Your task to perform on an android device: Go to wifi settings Image 0: 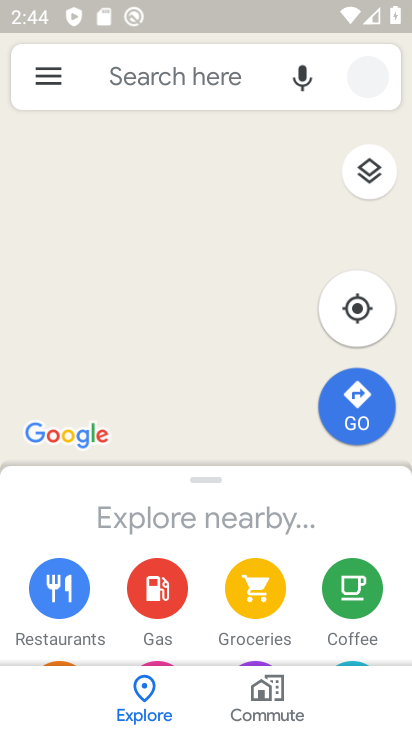
Step 0: press home button
Your task to perform on an android device: Go to wifi settings Image 1: 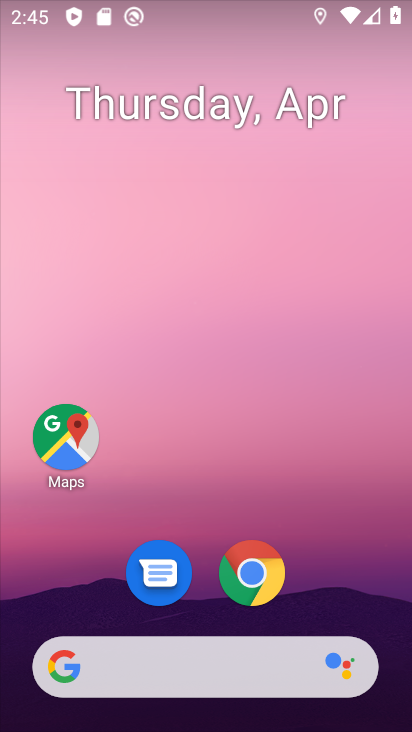
Step 1: drag from (346, 589) to (200, 54)
Your task to perform on an android device: Go to wifi settings Image 2: 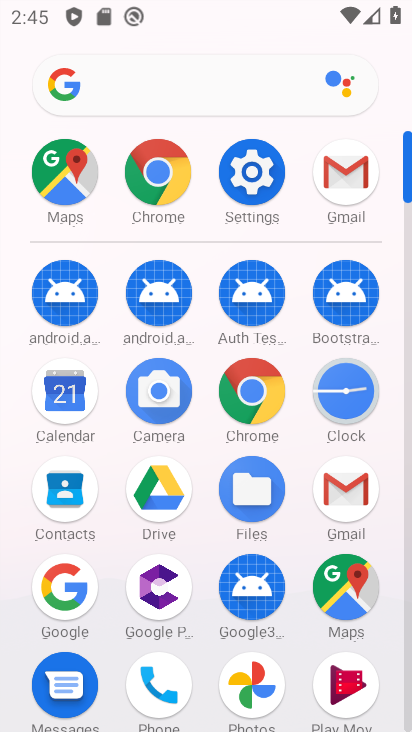
Step 2: click (251, 174)
Your task to perform on an android device: Go to wifi settings Image 3: 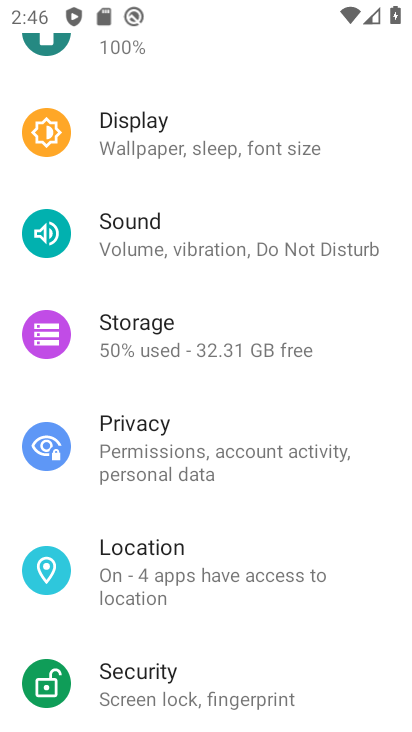
Step 3: drag from (213, 86) to (253, 622)
Your task to perform on an android device: Go to wifi settings Image 4: 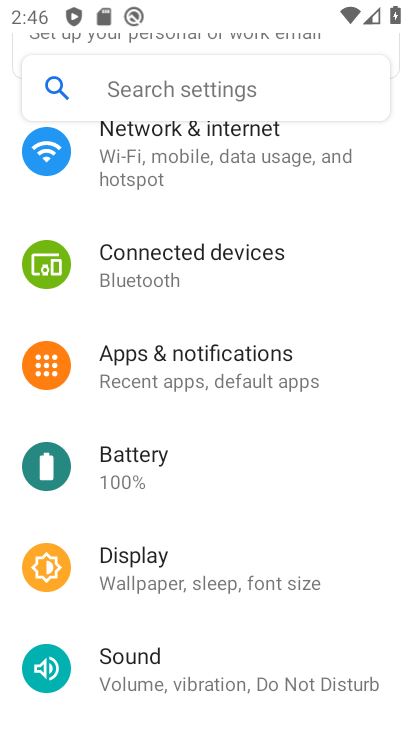
Step 4: click (190, 165)
Your task to perform on an android device: Go to wifi settings Image 5: 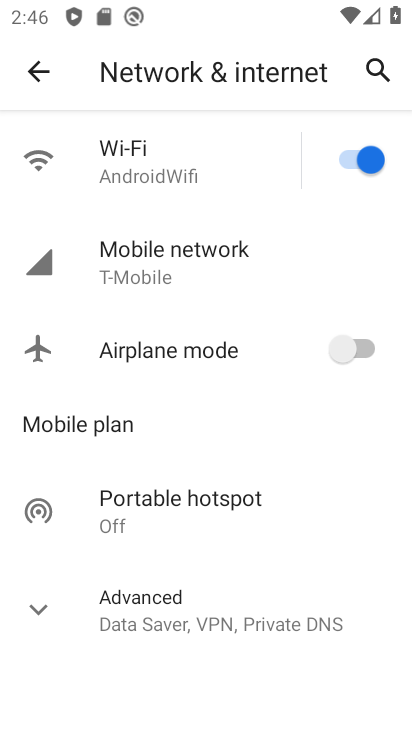
Step 5: click (190, 165)
Your task to perform on an android device: Go to wifi settings Image 6: 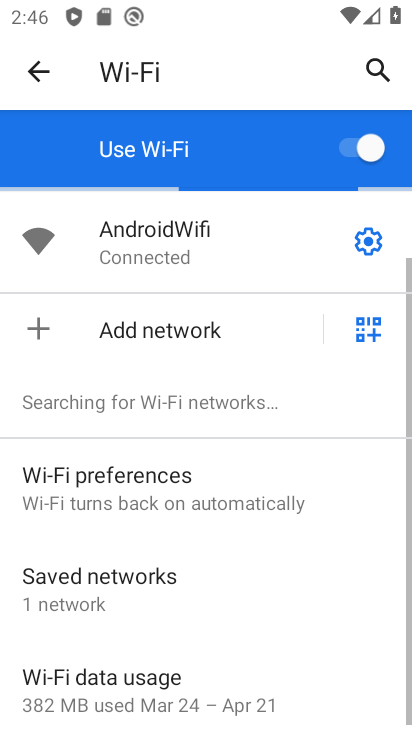
Step 6: task complete